Your task to perform on an android device: create a new album in the google photos Image 0: 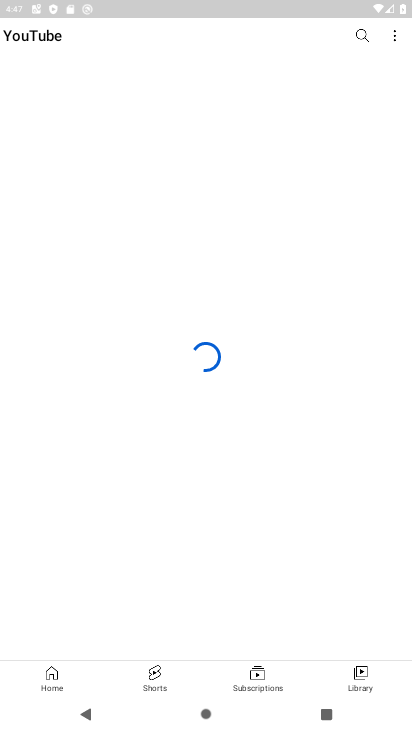
Step 0: press home button
Your task to perform on an android device: create a new album in the google photos Image 1: 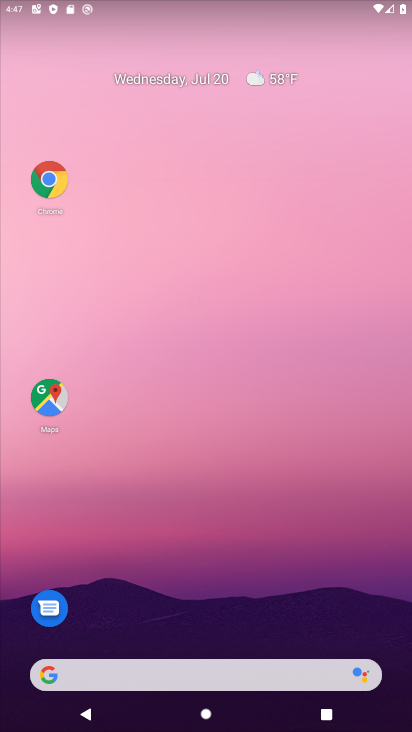
Step 1: drag from (227, 637) to (104, 148)
Your task to perform on an android device: create a new album in the google photos Image 2: 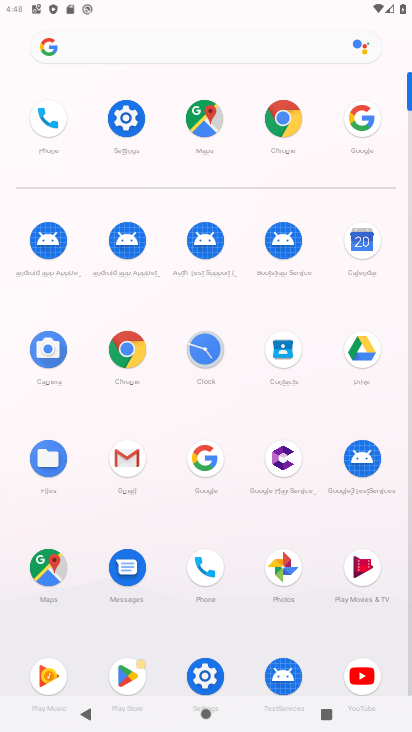
Step 2: click (282, 561)
Your task to perform on an android device: create a new album in the google photos Image 3: 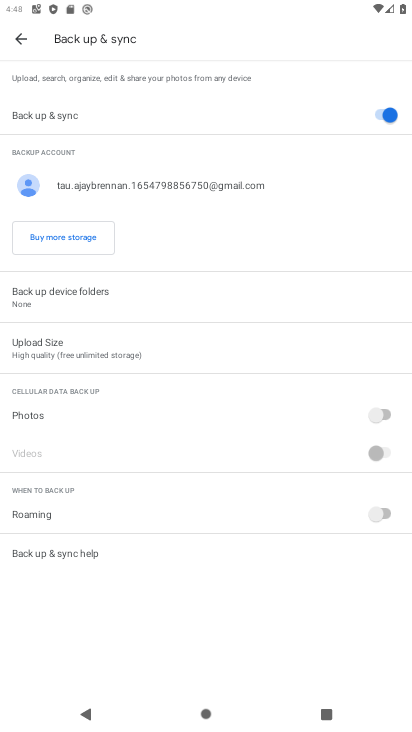
Step 3: task complete